Your task to perform on an android device: Is it going to rain tomorrow? Image 0: 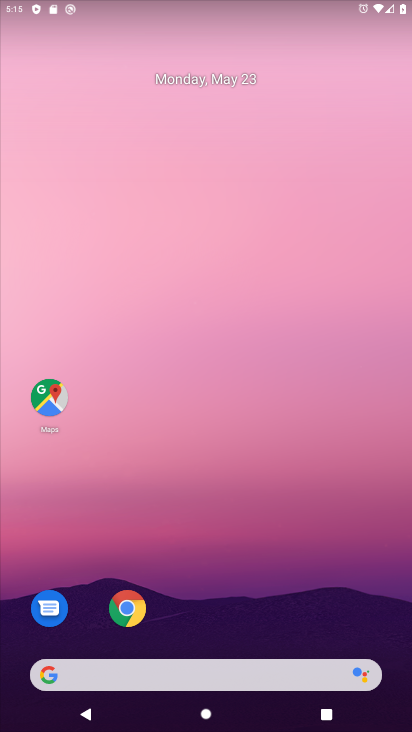
Step 0: click (188, 679)
Your task to perform on an android device: Is it going to rain tomorrow? Image 1: 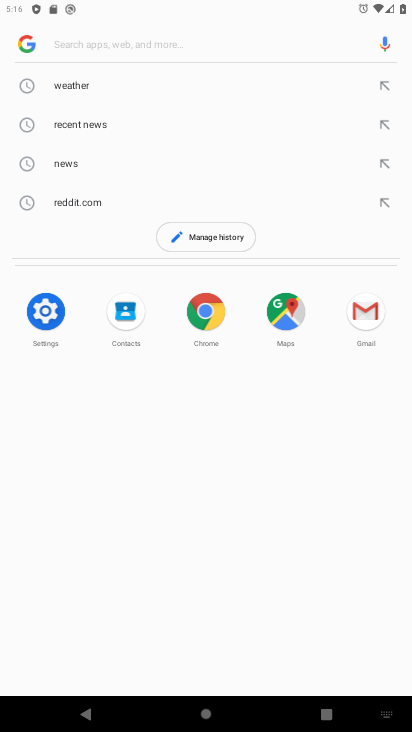
Step 1: click (74, 86)
Your task to perform on an android device: Is it going to rain tomorrow? Image 2: 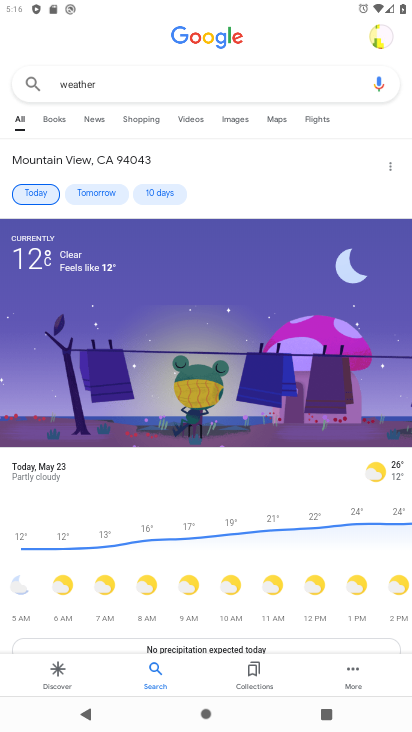
Step 2: click (88, 198)
Your task to perform on an android device: Is it going to rain tomorrow? Image 3: 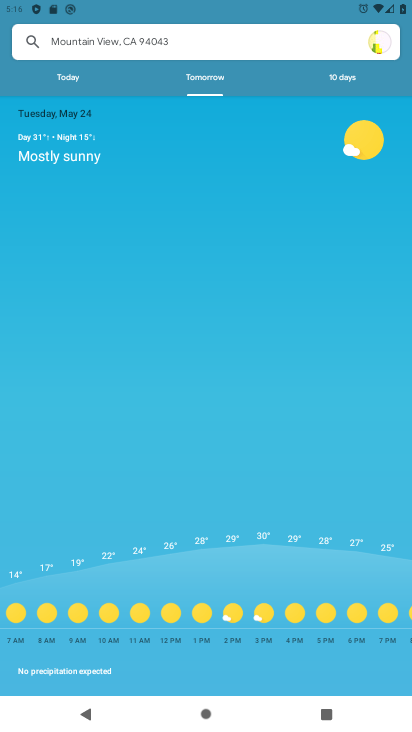
Step 3: task complete